Your task to perform on an android device: Check the weather Image 0: 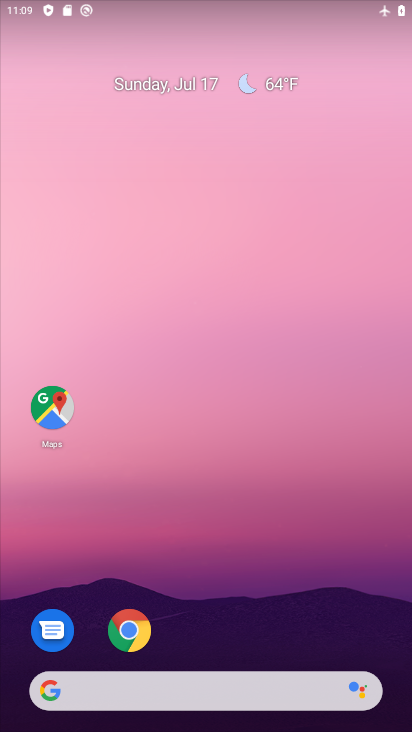
Step 0: click (272, 85)
Your task to perform on an android device: Check the weather Image 1: 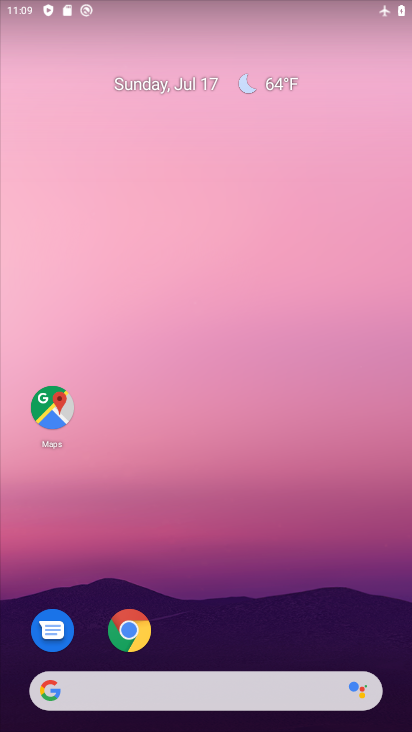
Step 1: click (272, 85)
Your task to perform on an android device: Check the weather Image 2: 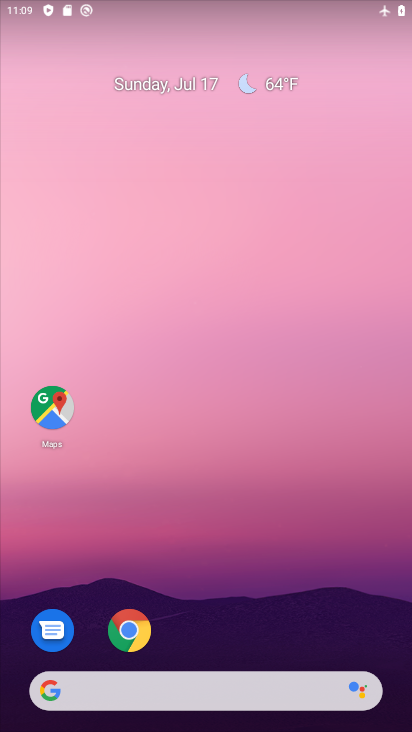
Step 2: click (267, 80)
Your task to perform on an android device: Check the weather Image 3: 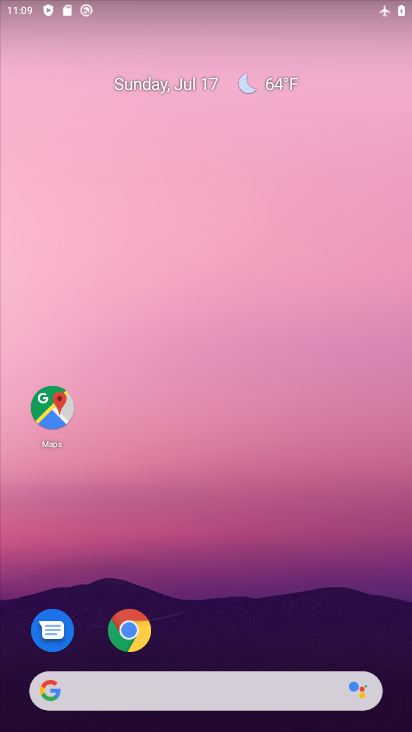
Step 3: click (252, 88)
Your task to perform on an android device: Check the weather Image 4: 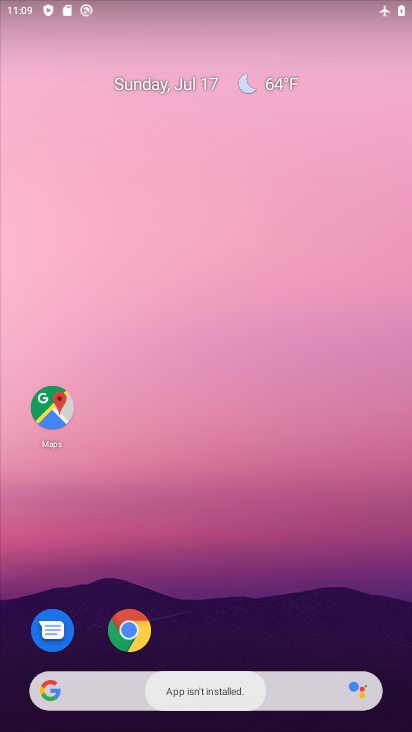
Step 4: drag from (1, 334) to (407, 349)
Your task to perform on an android device: Check the weather Image 5: 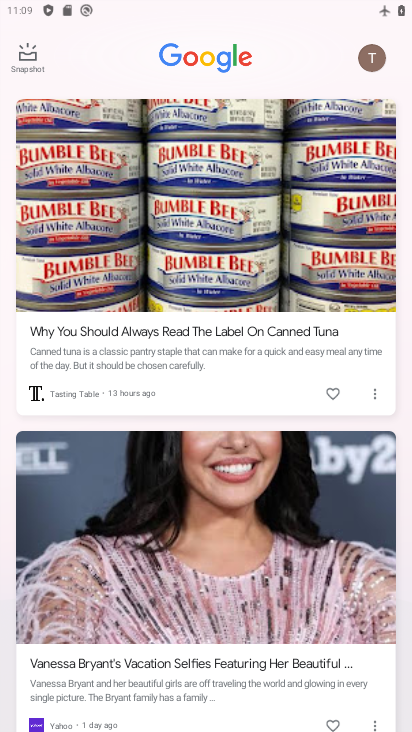
Step 5: drag from (407, 382) to (32, 348)
Your task to perform on an android device: Check the weather Image 6: 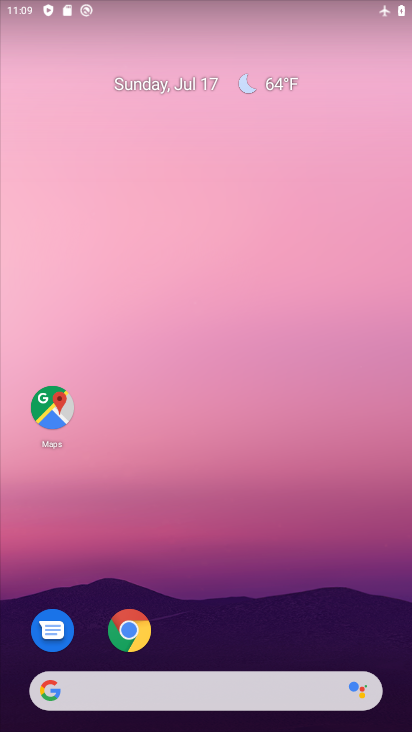
Step 6: click (290, 80)
Your task to perform on an android device: Check the weather Image 7: 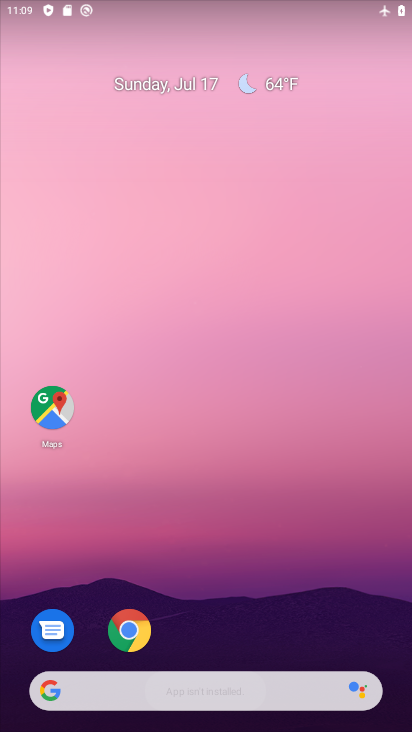
Step 7: click (279, 86)
Your task to perform on an android device: Check the weather Image 8: 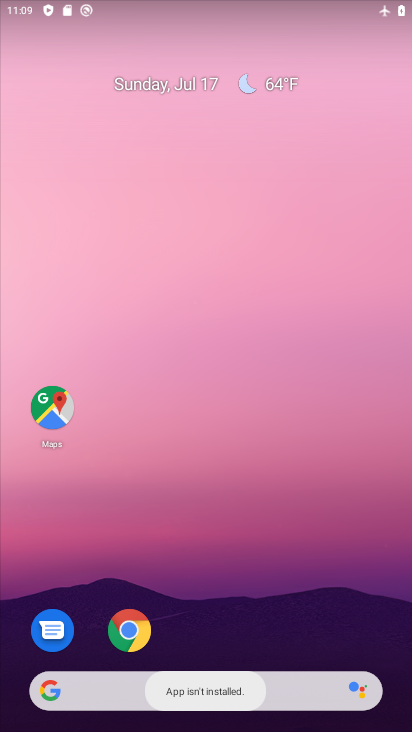
Step 8: click (251, 84)
Your task to perform on an android device: Check the weather Image 9: 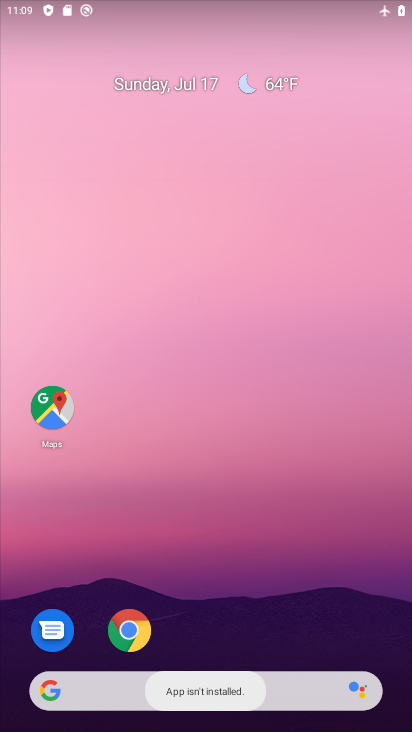
Step 9: click (99, 686)
Your task to perform on an android device: Check the weather Image 10: 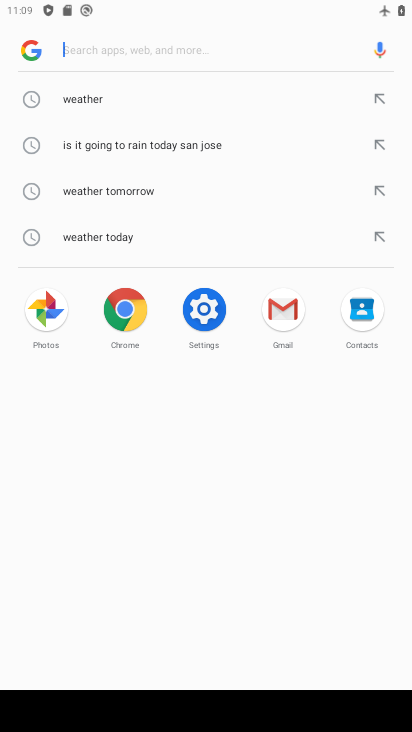
Step 10: click (80, 96)
Your task to perform on an android device: Check the weather Image 11: 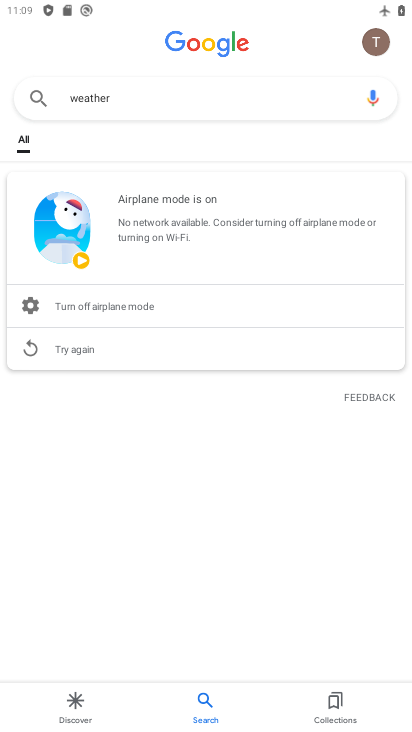
Step 11: click (27, 350)
Your task to perform on an android device: Check the weather Image 12: 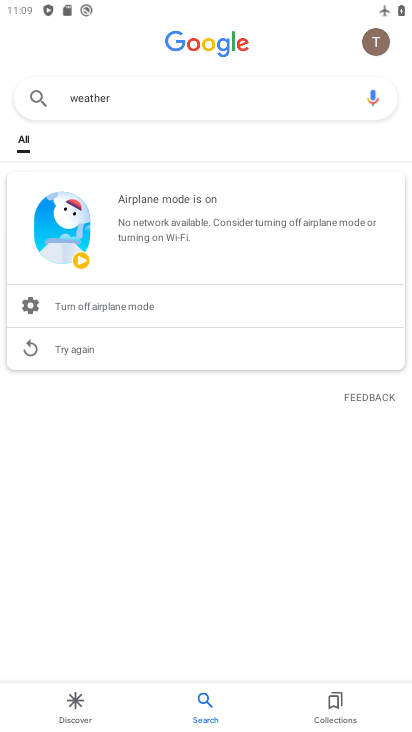
Step 12: click (27, 350)
Your task to perform on an android device: Check the weather Image 13: 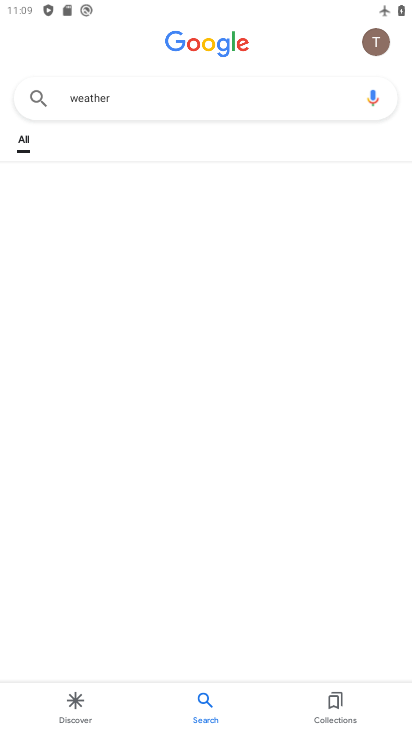
Step 13: click (27, 350)
Your task to perform on an android device: Check the weather Image 14: 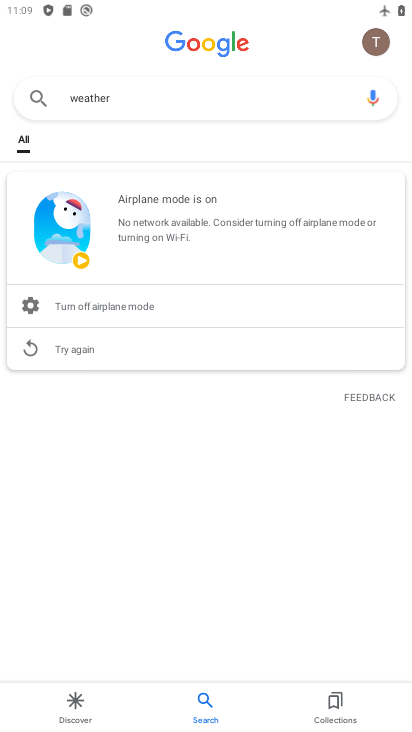
Step 14: task complete